Your task to perform on an android device: Go to Maps Image 0: 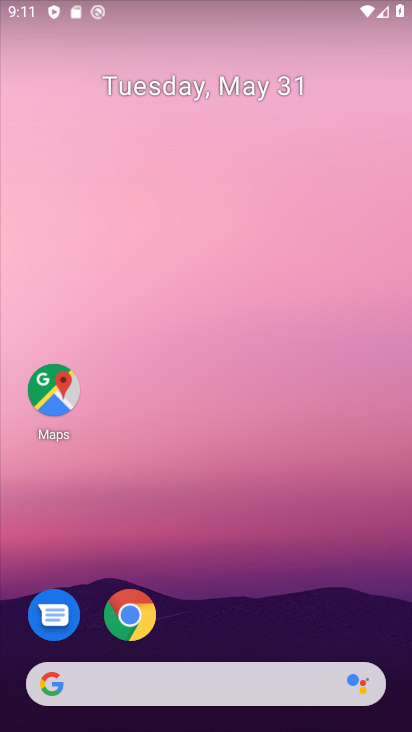
Step 0: click (46, 377)
Your task to perform on an android device: Go to Maps Image 1: 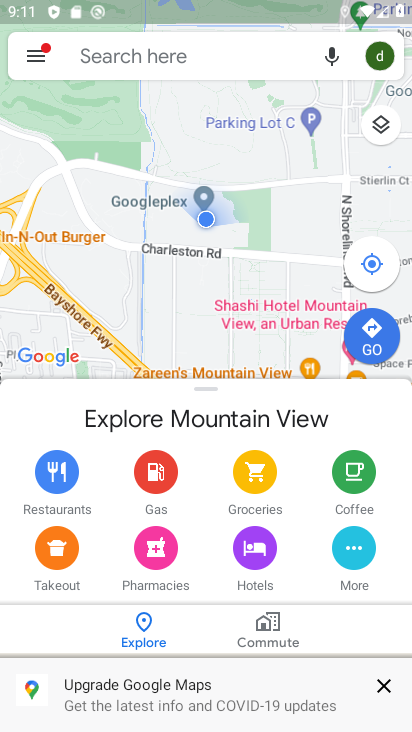
Step 1: task complete